Your task to perform on an android device: allow cookies in the chrome app Image 0: 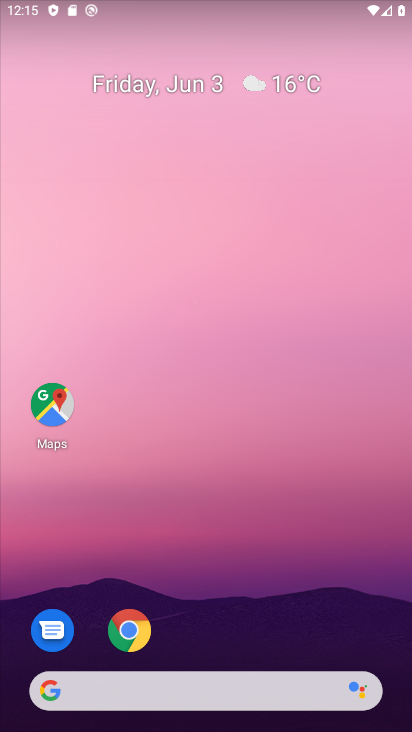
Step 0: drag from (253, 722) to (155, 154)
Your task to perform on an android device: allow cookies in the chrome app Image 1: 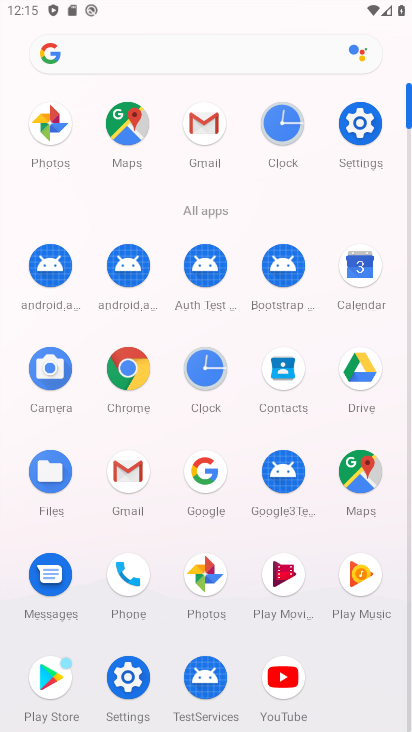
Step 1: click (138, 359)
Your task to perform on an android device: allow cookies in the chrome app Image 2: 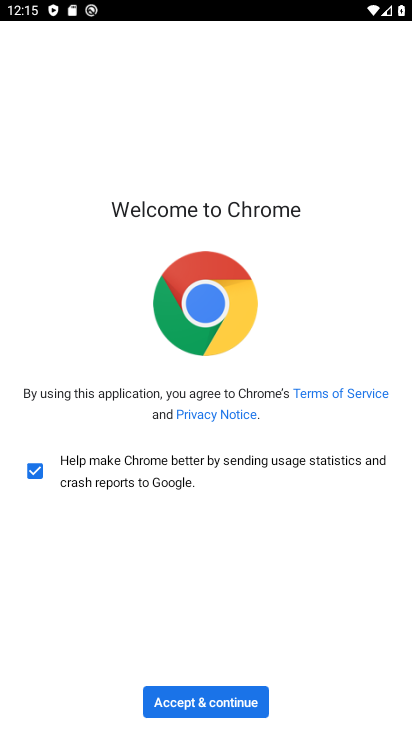
Step 2: click (204, 676)
Your task to perform on an android device: allow cookies in the chrome app Image 3: 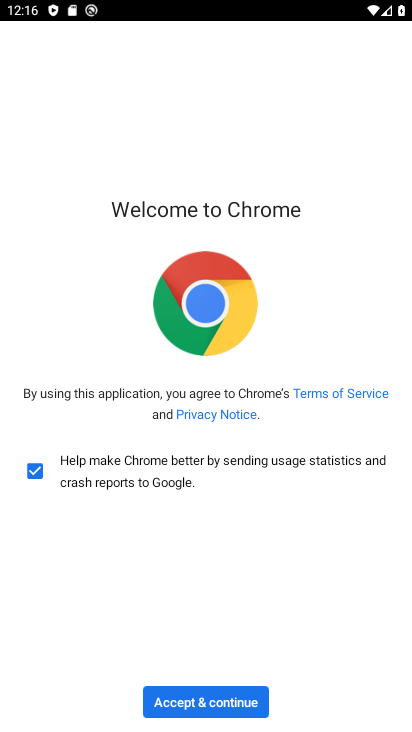
Step 3: click (186, 692)
Your task to perform on an android device: allow cookies in the chrome app Image 4: 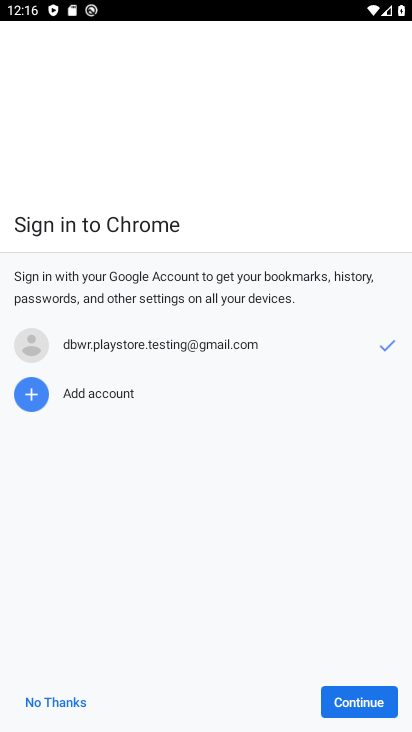
Step 4: click (340, 710)
Your task to perform on an android device: allow cookies in the chrome app Image 5: 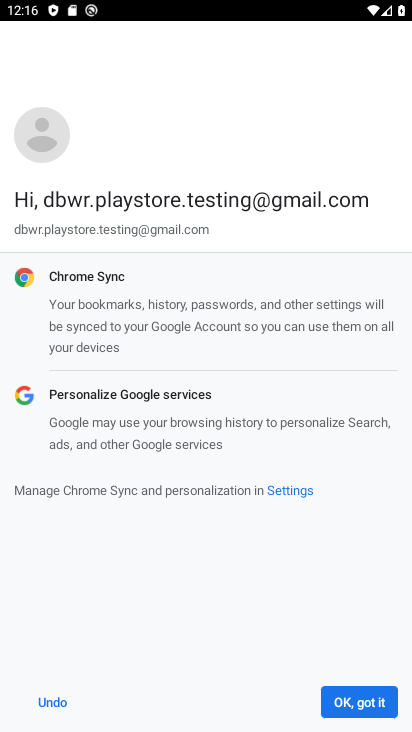
Step 5: click (354, 696)
Your task to perform on an android device: allow cookies in the chrome app Image 6: 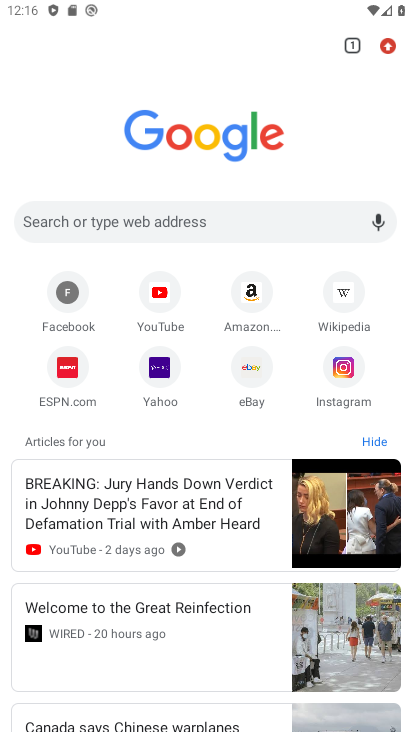
Step 6: click (393, 48)
Your task to perform on an android device: allow cookies in the chrome app Image 7: 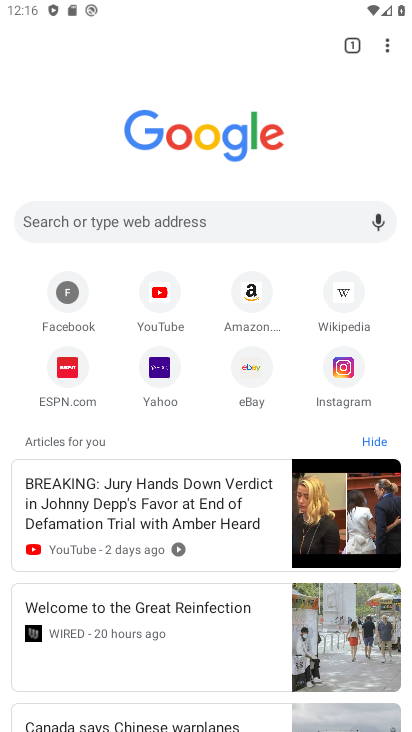
Step 7: click (387, 47)
Your task to perform on an android device: allow cookies in the chrome app Image 8: 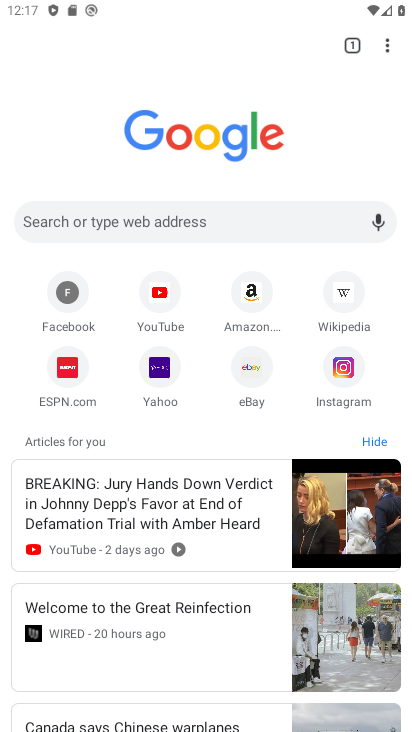
Step 8: click (386, 52)
Your task to perform on an android device: allow cookies in the chrome app Image 9: 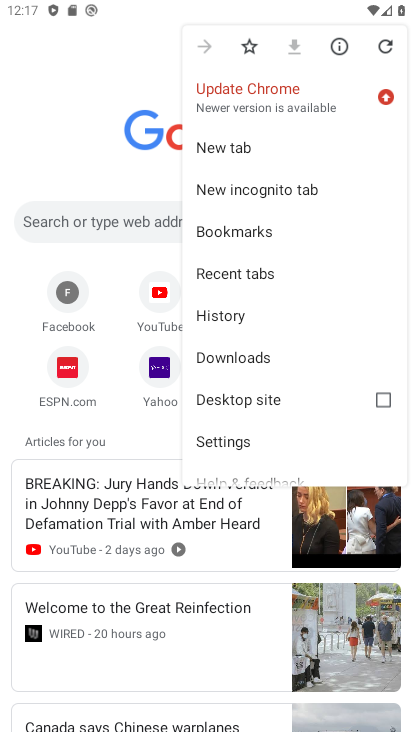
Step 9: click (235, 428)
Your task to perform on an android device: allow cookies in the chrome app Image 10: 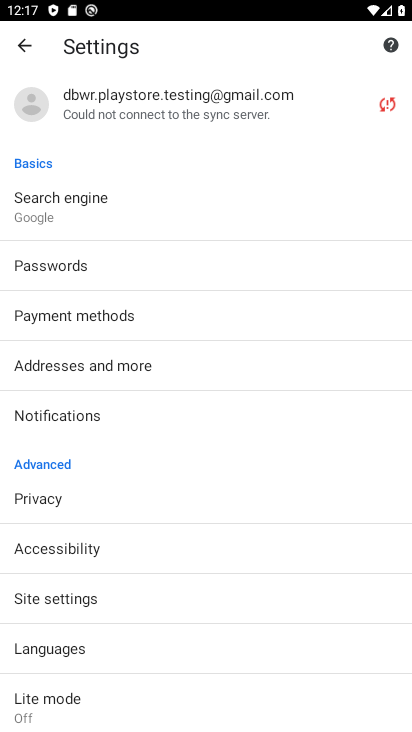
Step 10: click (100, 594)
Your task to perform on an android device: allow cookies in the chrome app Image 11: 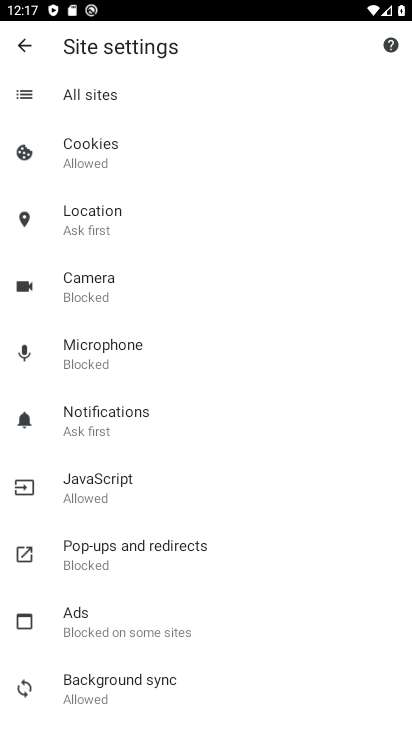
Step 11: click (119, 158)
Your task to perform on an android device: allow cookies in the chrome app Image 12: 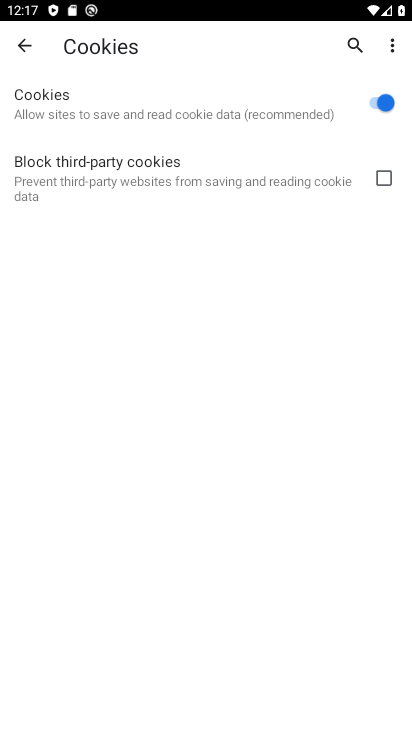
Step 12: click (375, 121)
Your task to perform on an android device: allow cookies in the chrome app Image 13: 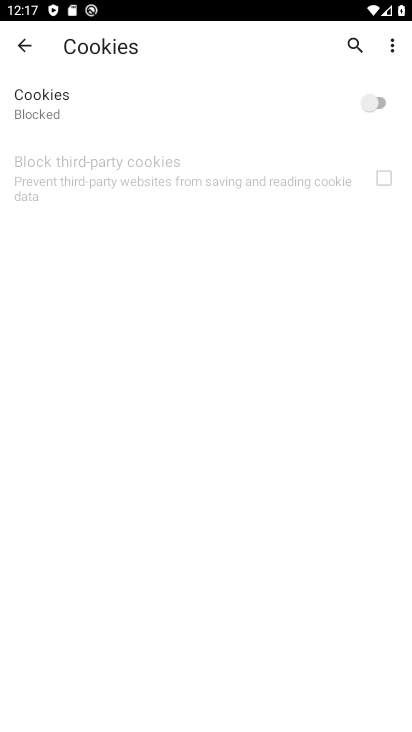
Step 13: click (375, 121)
Your task to perform on an android device: allow cookies in the chrome app Image 14: 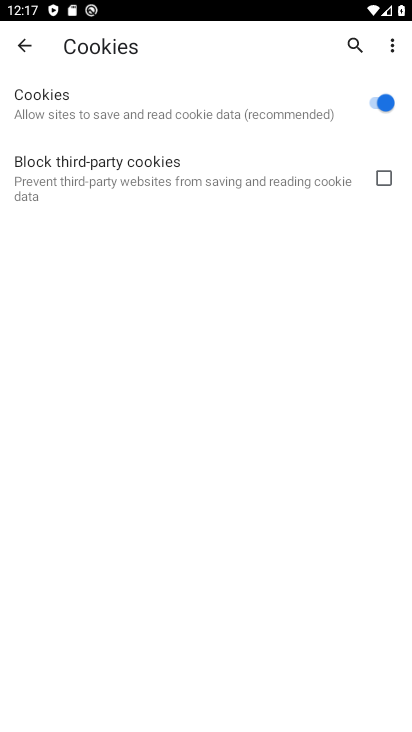
Step 14: task complete